Your task to perform on an android device: Open internet settings Image 0: 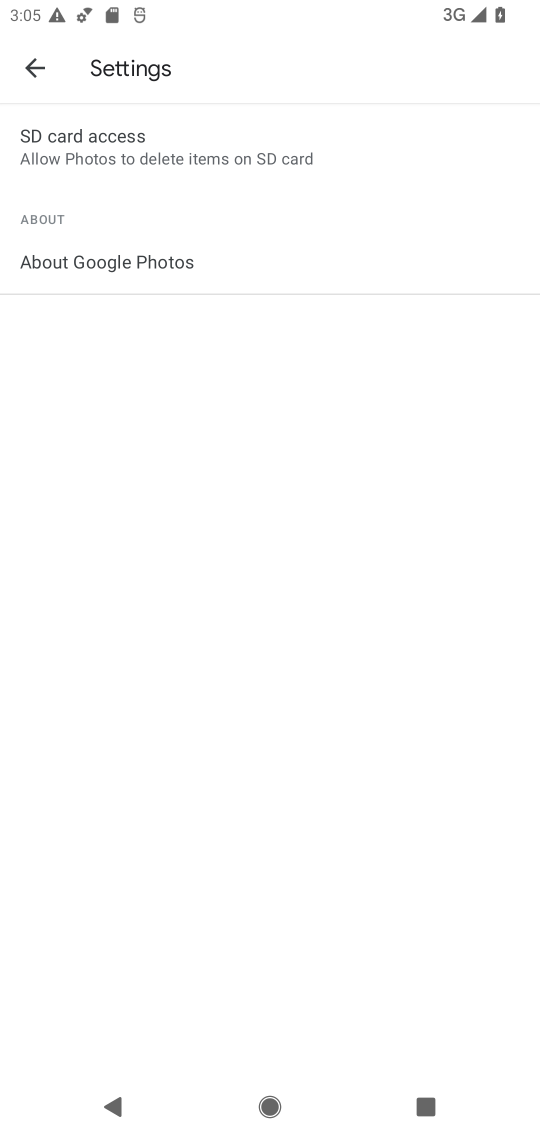
Step 0: press home button
Your task to perform on an android device: Open internet settings Image 1: 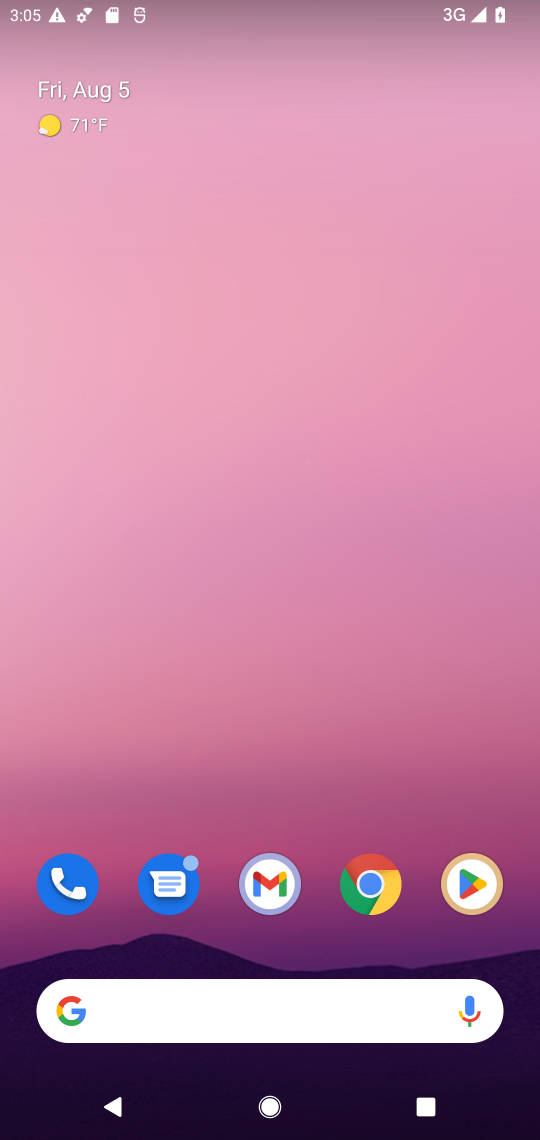
Step 1: drag from (478, 850) to (269, 67)
Your task to perform on an android device: Open internet settings Image 2: 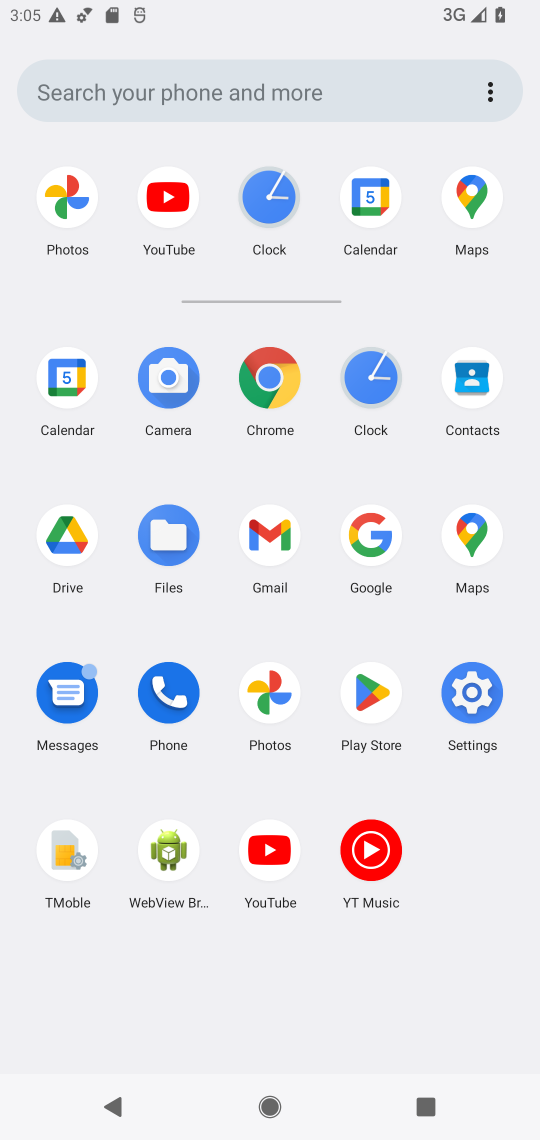
Step 2: click (478, 688)
Your task to perform on an android device: Open internet settings Image 3: 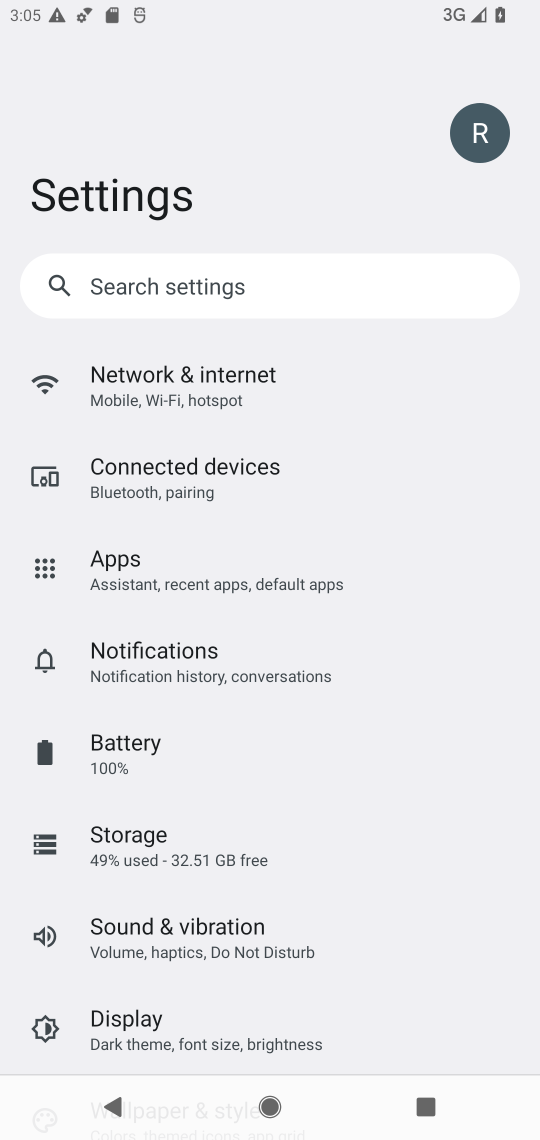
Step 3: click (172, 398)
Your task to perform on an android device: Open internet settings Image 4: 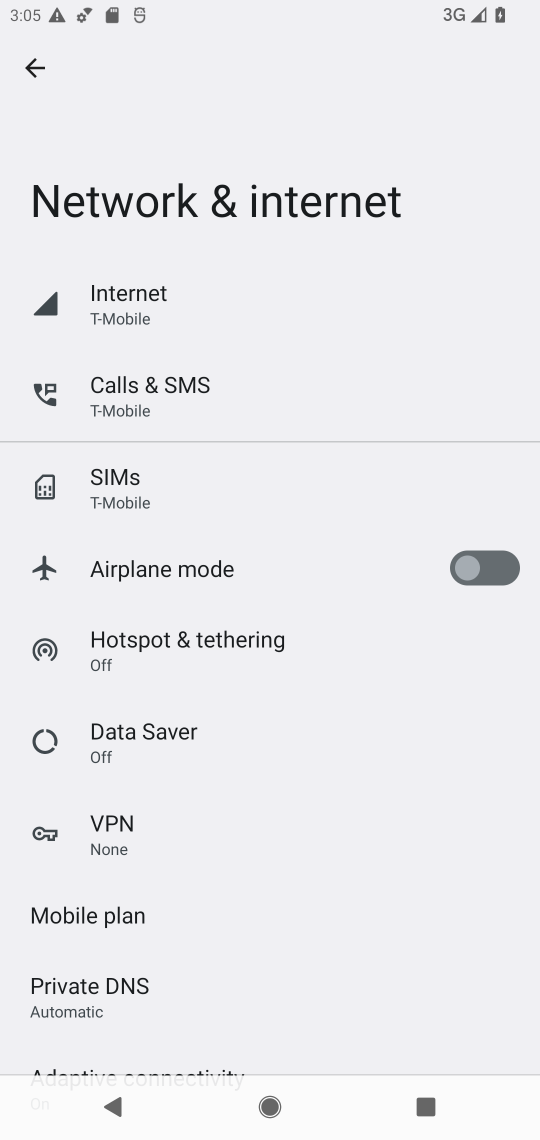
Step 4: task complete